Your task to perform on an android device: Go to privacy settings Image 0: 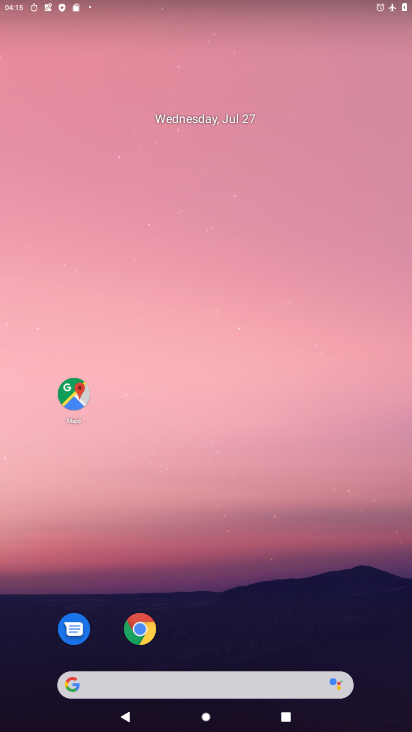
Step 0: press home button
Your task to perform on an android device: Go to privacy settings Image 1: 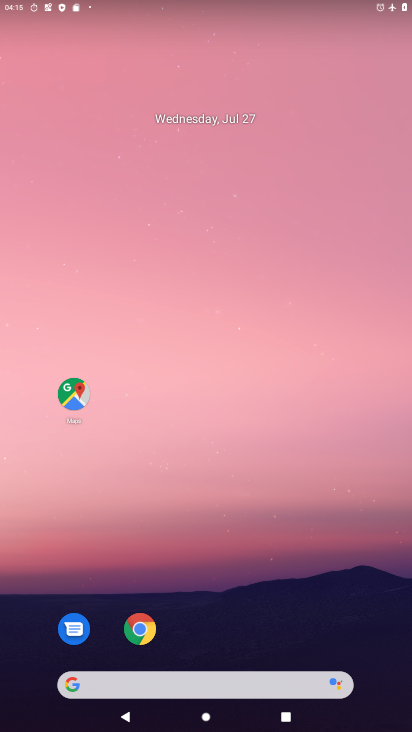
Step 1: click (253, 106)
Your task to perform on an android device: Go to privacy settings Image 2: 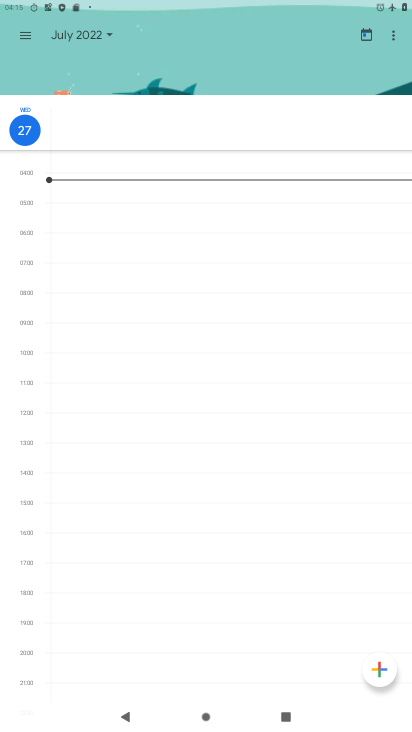
Step 2: press home button
Your task to perform on an android device: Go to privacy settings Image 3: 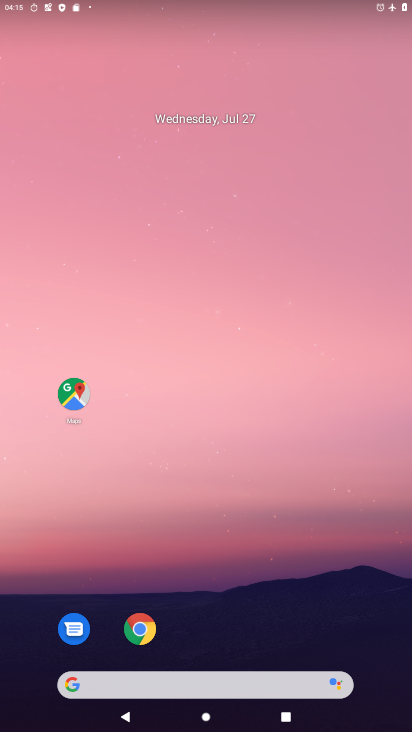
Step 3: drag from (318, 550) to (266, 83)
Your task to perform on an android device: Go to privacy settings Image 4: 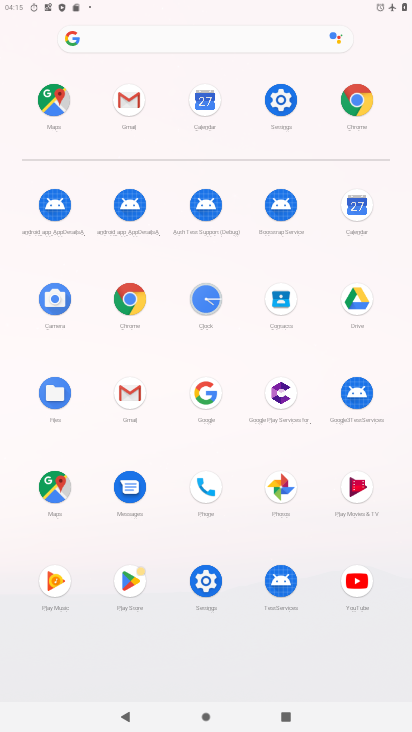
Step 4: click (268, 96)
Your task to perform on an android device: Go to privacy settings Image 5: 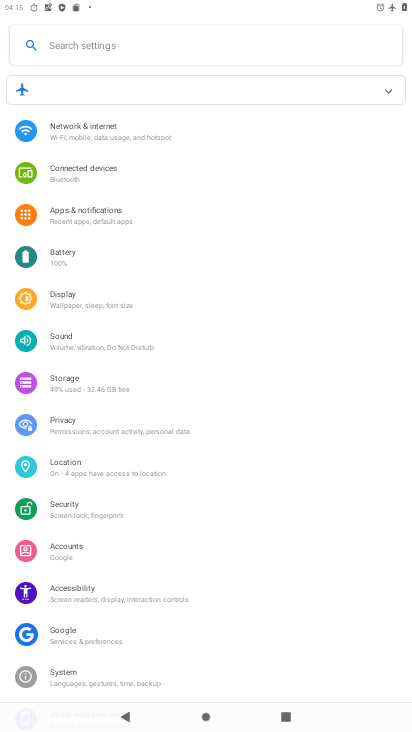
Step 5: click (90, 439)
Your task to perform on an android device: Go to privacy settings Image 6: 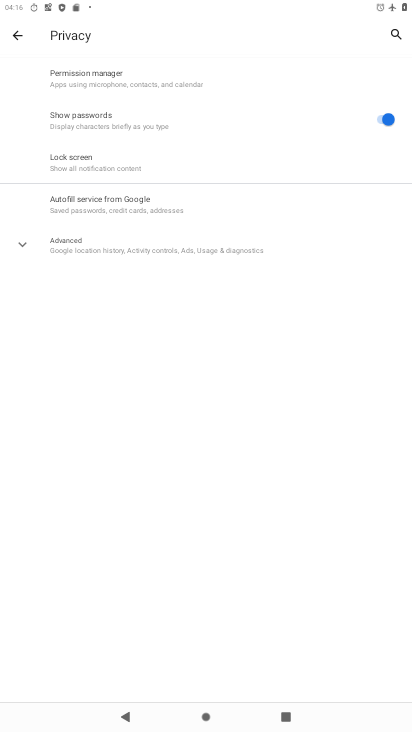
Step 6: task complete